Your task to perform on an android device: Go to Reddit.com Image 0: 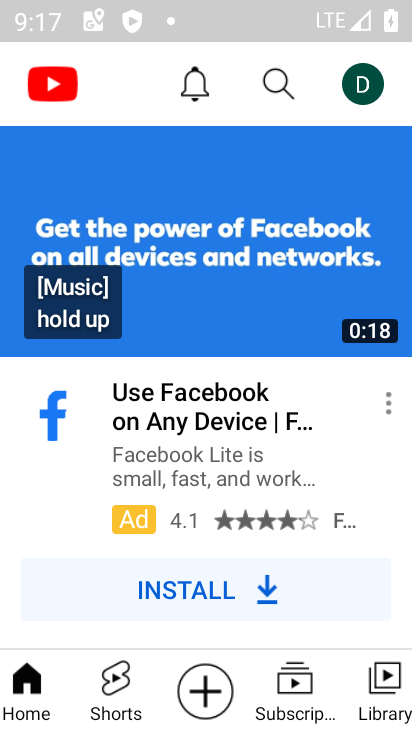
Step 0: press home button
Your task to perform on an android device: Go to Reddit.com Image 1: 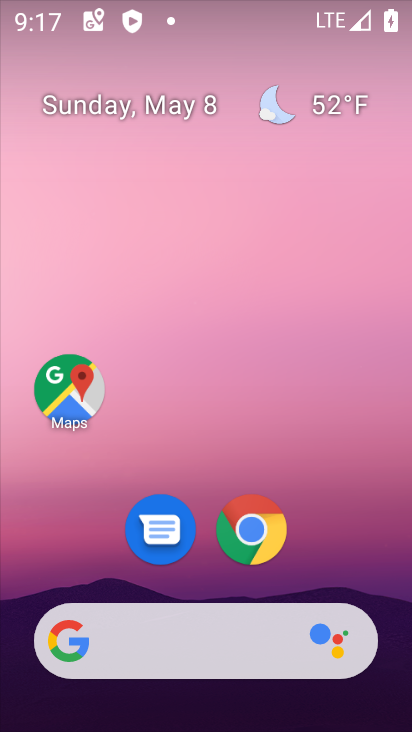
Step 1: drag from (334, 560) to (324, 141)
Your task to perform on an android device: Go to Reddit.com Image 2: 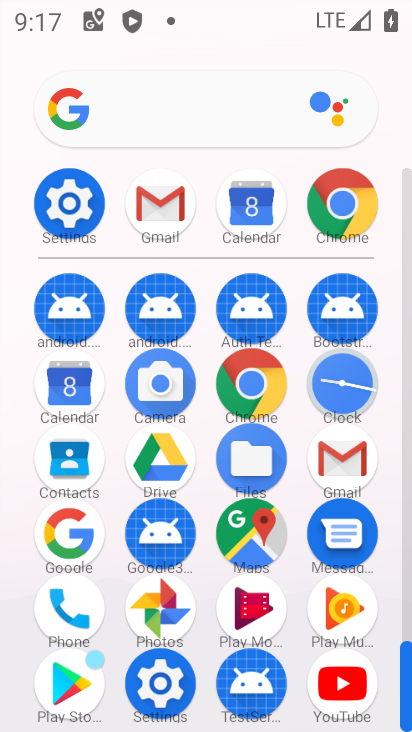
Step 2: click (255, 409)
Your task to perform on an android device: Go to Reddit.com Image 3: 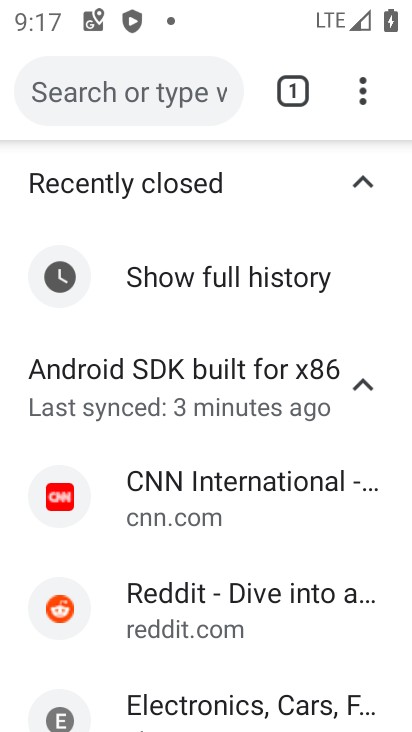
Step 3: type "reddit.com"
Your task to perform on an android device: Go to Reddit.com Image 4: 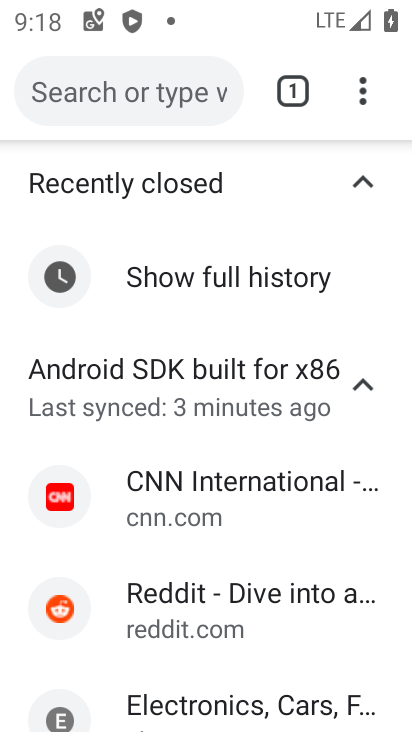
Step 4: click (274, 605)
Your task to perform on an android device: Go to Reddit.com Image 5: 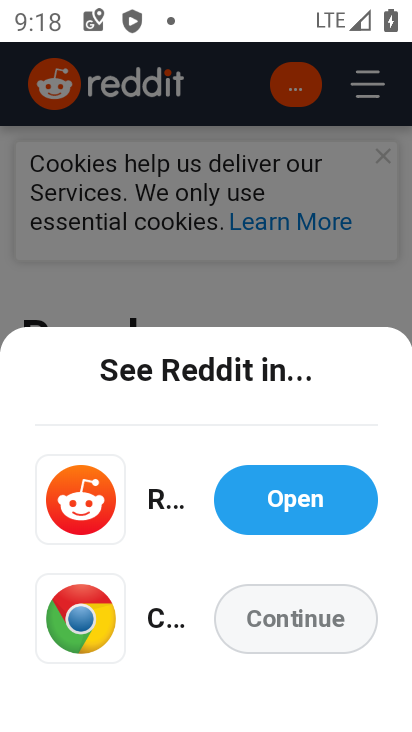
Step 5: task complete